Your task to perform on an android device: Set the phone to "Do not disturb". Image 0: 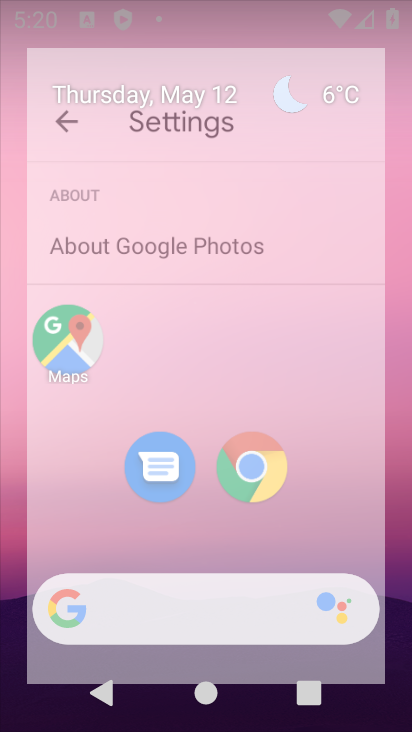
Step 0: drag from (272, 549) to (317, 2)
Your task to perform on an android device: Set the phone to "Do not disturb". Image 1: 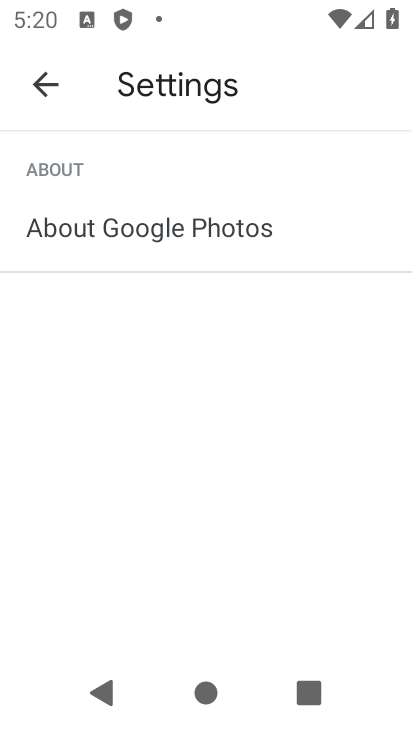
Step 1: press home button
Your task to perform on an android device: Set the phone to "Do not disturb". Image 2: 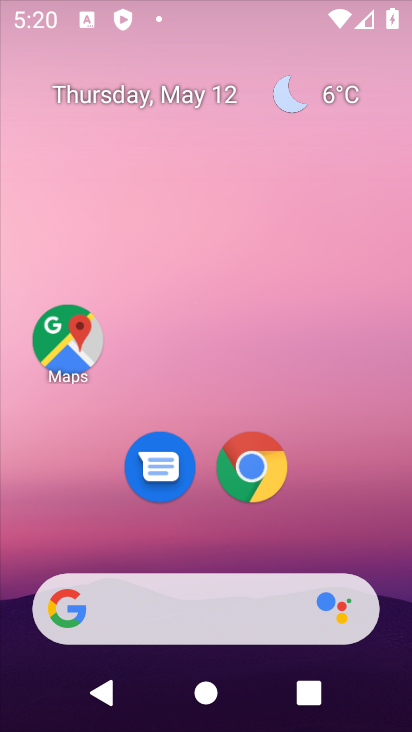
Step 2: drag from (150, 663) to (207, 23)
Your task to perform on an android device: Set the phone to "Do not disturb". Image 3: 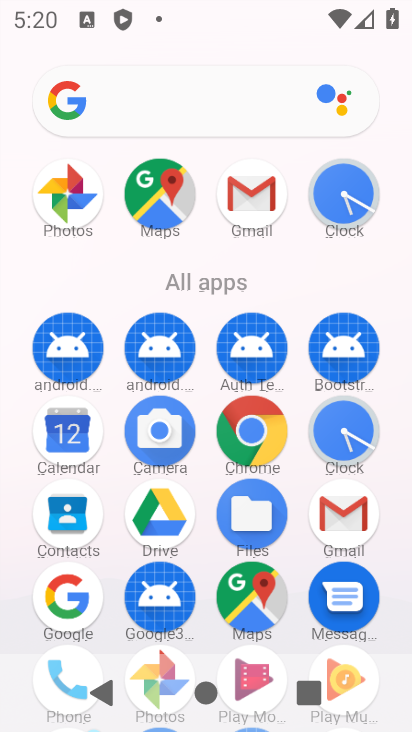
Step 3: drag from (216, 585) to (219, 178)
Your task to perform on an android device: Set the phone to "Do not disturb". Image 4: 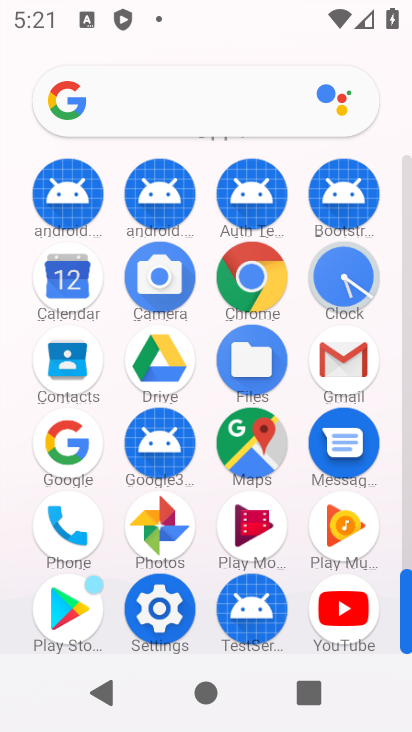
Step 4: click (163, 619)
Your task to perform on an android device: Set the phone to "Do not disturb". Image 5: 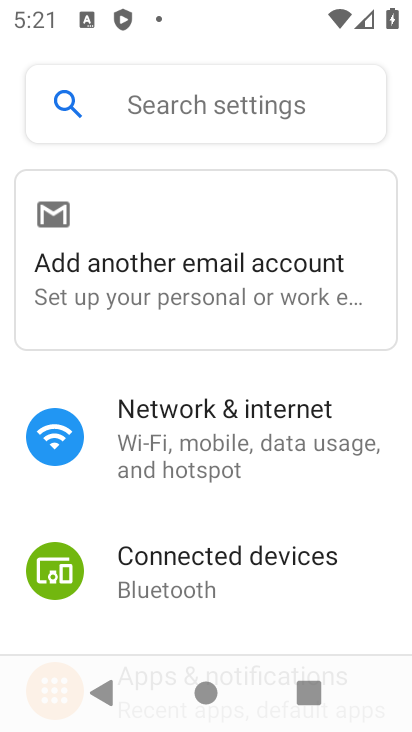
Step 5: drag from (230, 622) to (290, 1)
Your task to perform on an android device: Set the phone to "Do not disturb". Image 6: 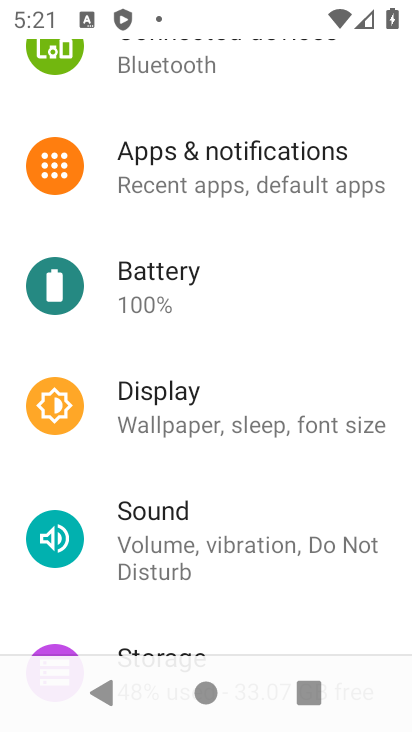
Step 6: click (227, 550)
Your task to perform on an android device: Set the phone to "Do not disturb". Image 7: 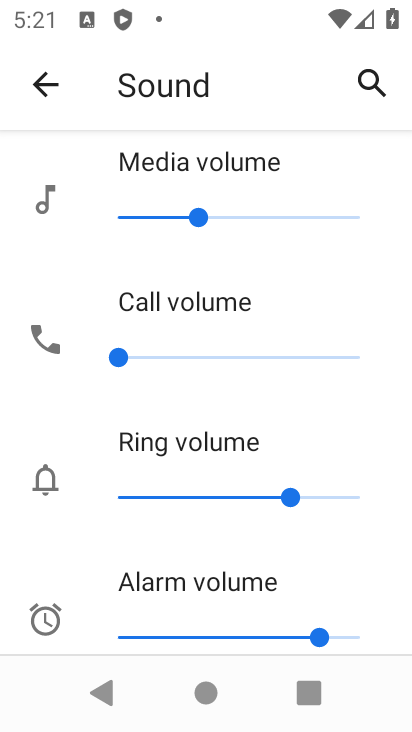
Step 7: drag from (215, 600) to (236, 125)
Your task to perform on an android device: Set the phone to "Do not disturb". Image 8: 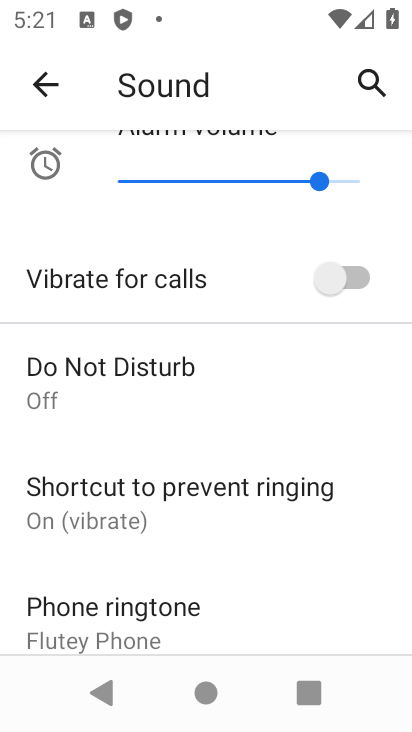
Step 8: click (161, 389)
Your task to perform on an android device: Set the phone to "Do not disturb". Image 9: 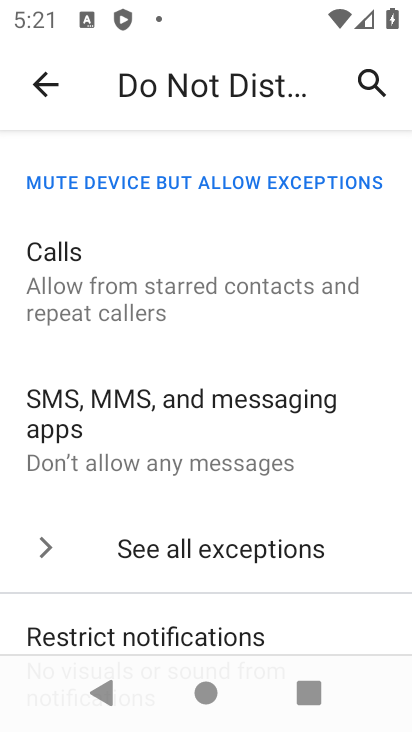
Step 9: drag from (216, 564) to (278, 14)
Your task to perform on an android device: Set the phone to "Do not disturb". Image 10: 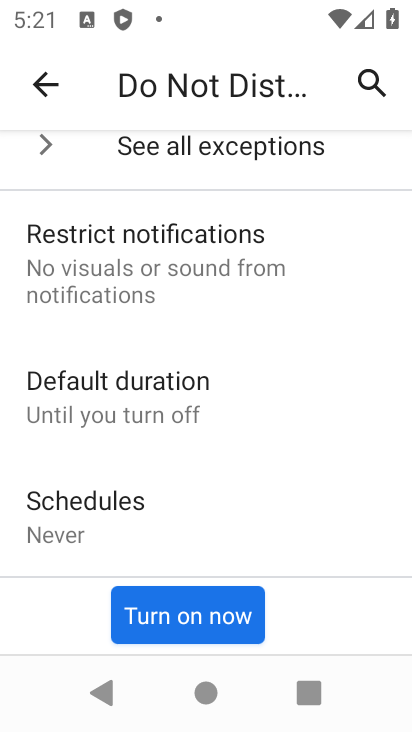
Step 10: click (223, 607)
Your task to perform on an android device: Set the phone to "Do not disturb". Image 11: 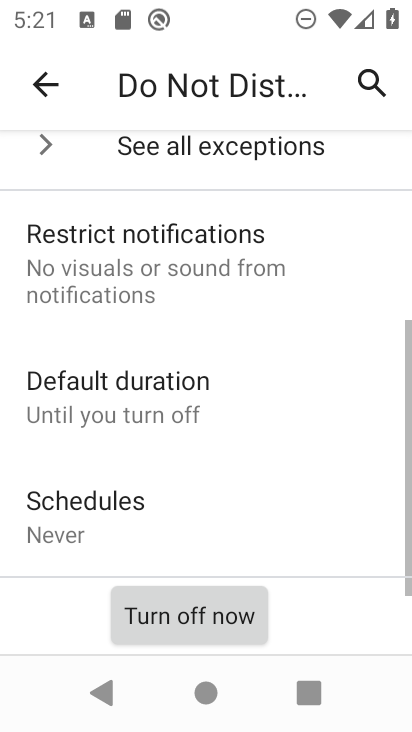
Step 11: task complete